Your task to perform on an android device: open device folders in google photos Image 0: 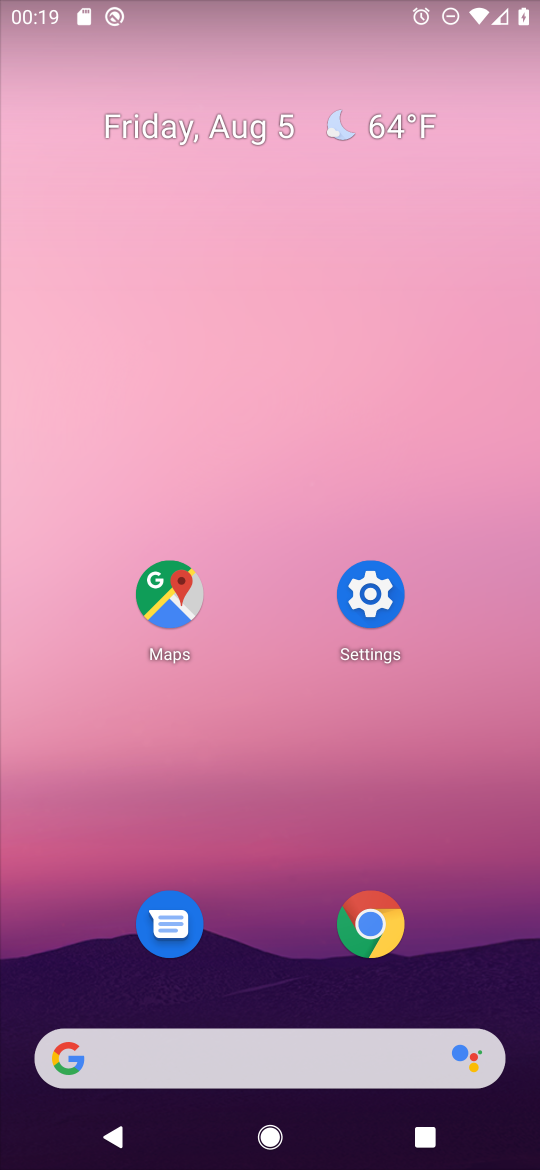
Step 0: drag from (231, 1062) to (446, 63)
Your task to perform on an android device: open device folders in google photos Image 1: 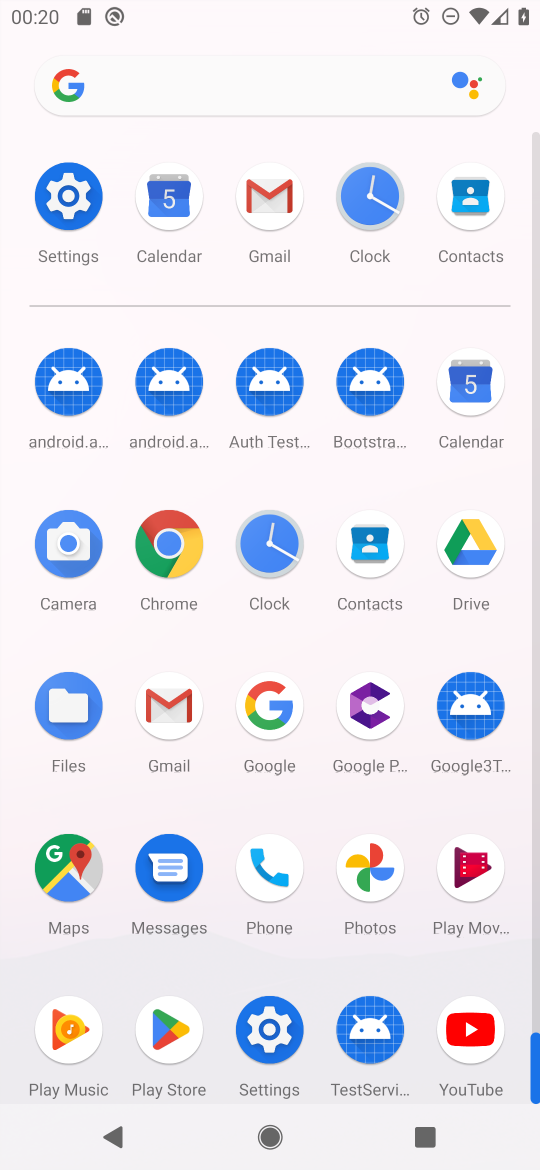
Step 1: click (380, 875)
Your task to perform on an android device: open device folders in google photos Image 2: 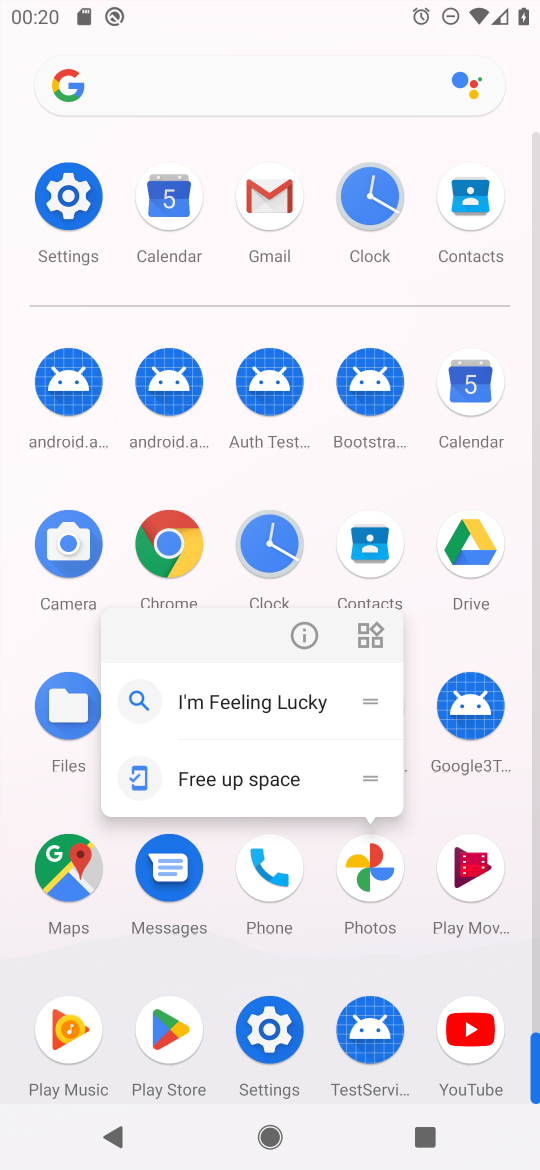
Step 2: click (372, 872)
Your task to perform on an android device: open device folders in google photos Image 3: 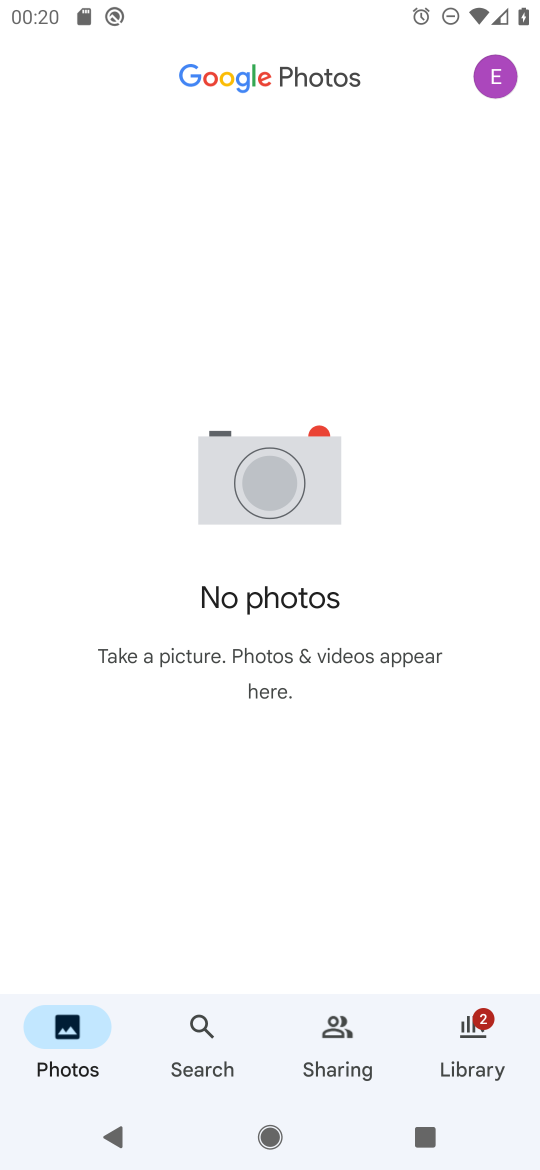
Step 3: click (488, 1045)
Your task to perform on an android device: open device folders in google photos Image 4: 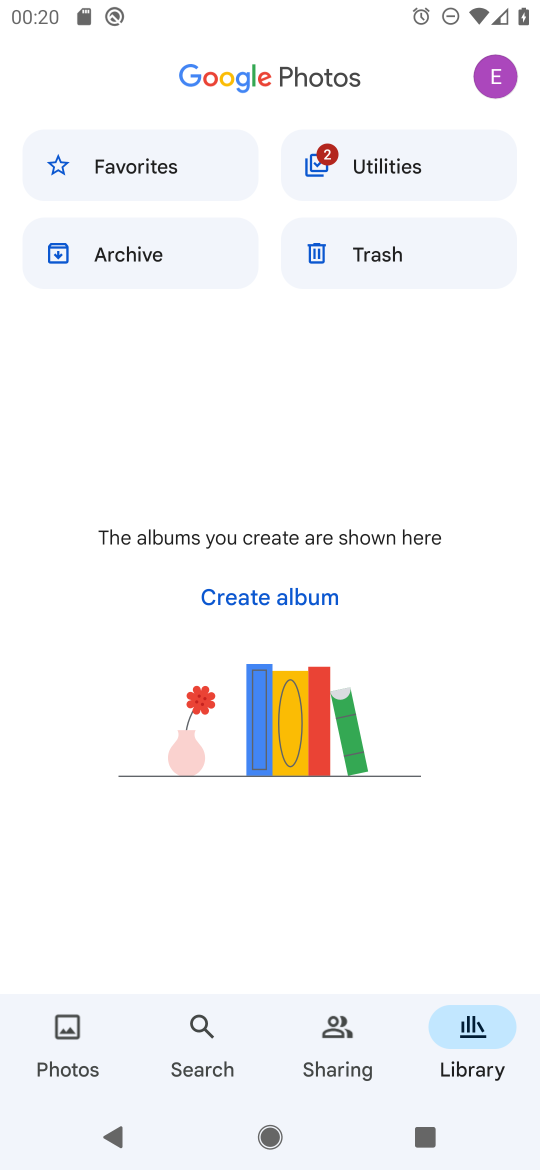
Step 4: click (131, 256)
Your task to perform on an android device: open device folders in google photos Image 5: 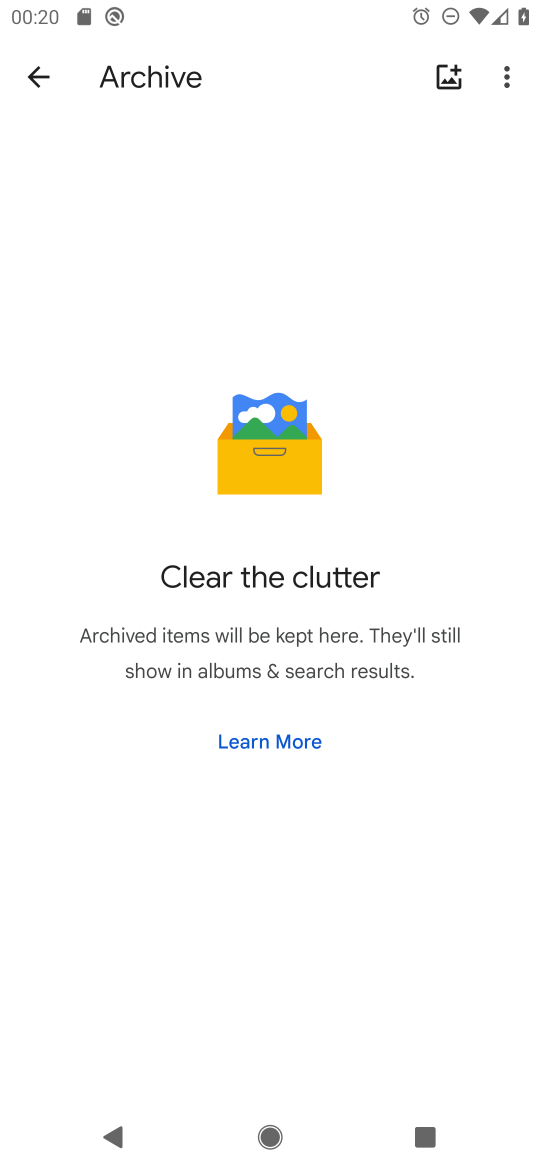
Step 5: click (37, 79)
Your task to perform on an android device: open device folders in google photos Image 6: 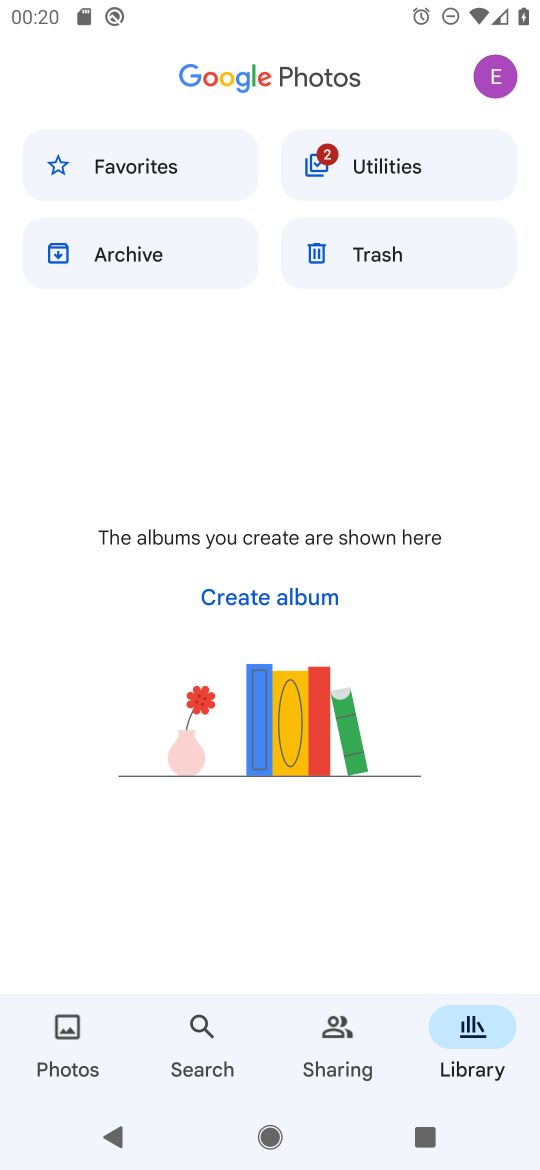
Step 6: task complete